Your task to perform on an android device: Search for seafood restaurants on Google Maps Image 0: 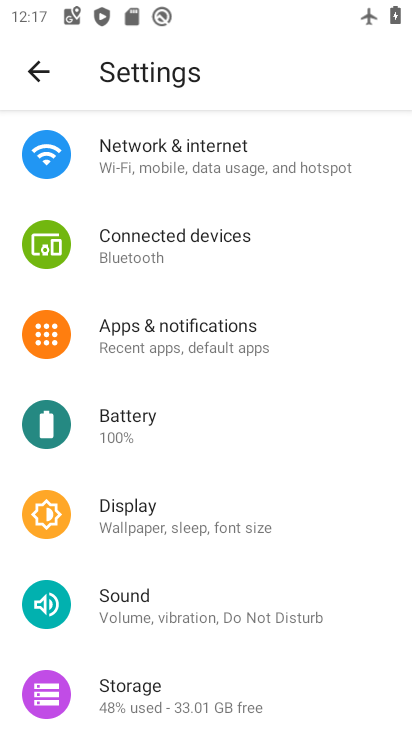
Step 0: drag from (252, 560) to (273, 303)
Your task to perform on an android device: Search for seafood restaurants on Google Maps Image 1: 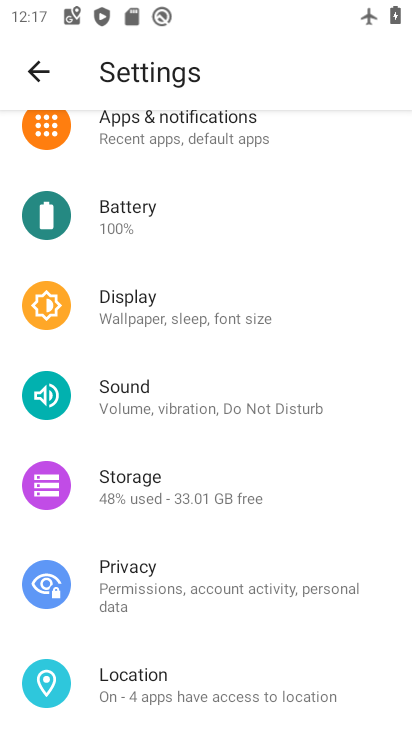
Step 1: press home button
Your task to perform on an android device: Search for seafood restaurants on Google Maps Image 2: 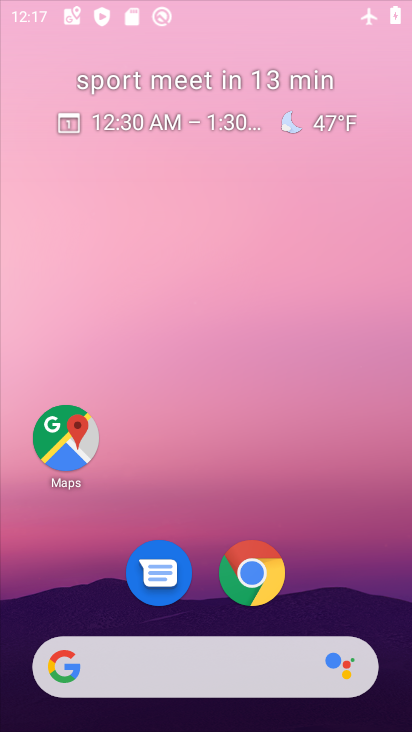
Step 2: drag from (179, 709) to (236, 320)
Your task to perform on an android device: Search for seafood restaurants on Google Maps Image 3: 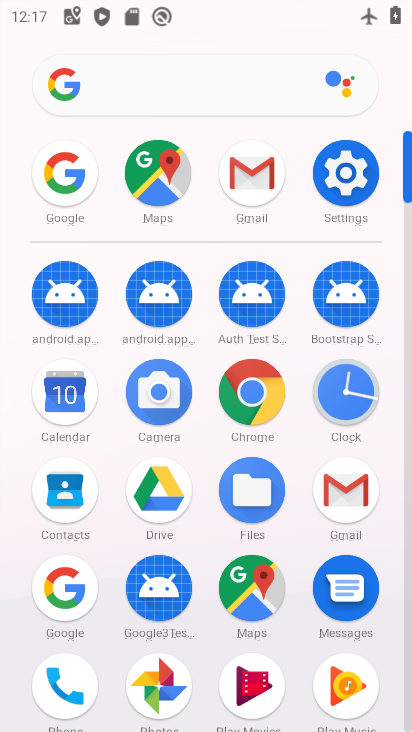
Step 3: click (239, 599)
Your task to perform on an android device: Search for seafood restaurants on Google Maps Image 4: 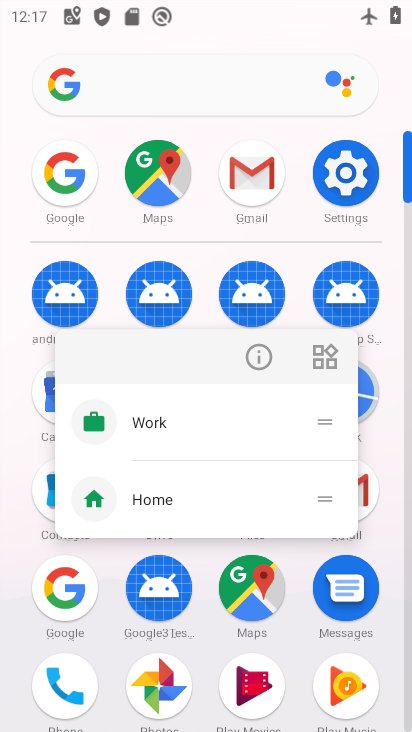
Step 4: click (260, 370)
Your task to perform on an android device: Search for seafood restaurants on Google Maps Image 5: 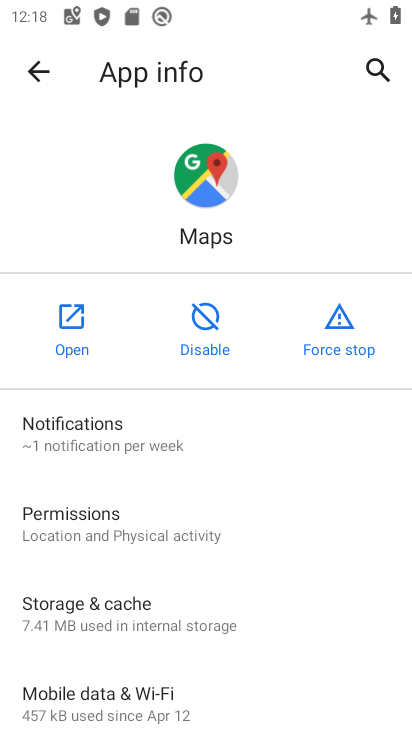
Step 5: click (76, 328)
Your task to perform on an android device: Search for seafood restaurants on Google Maps Image 6: 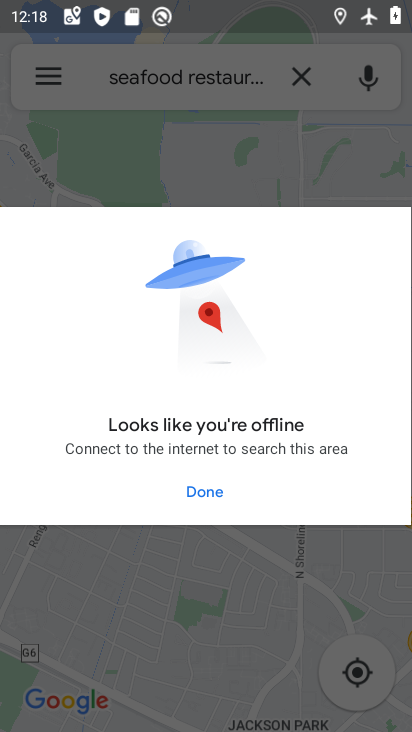
Step 6: click (318, 484)
Your task to perform on an android device: Search for seafood restaurants on Google Maps Image 7: 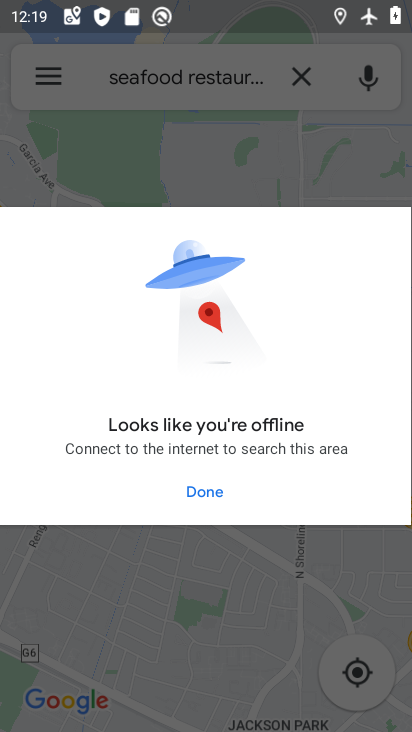
Step 7: click (197, 496)
Your task to perform on an android device: Search for seafood restaurants on Google Maps Image 8: 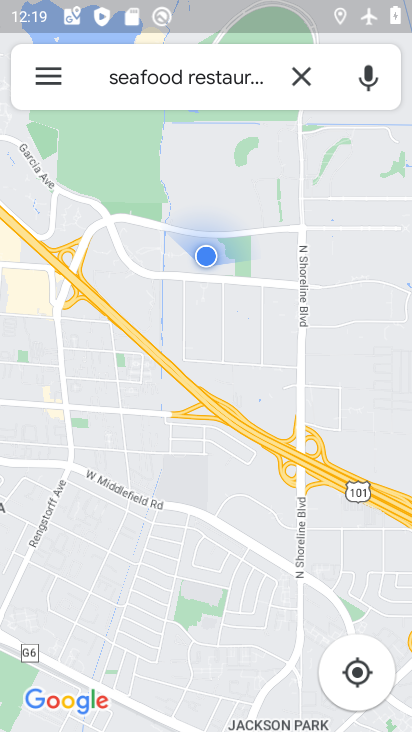
Step 8: task complete